Your task to perform on an android device: allow notifications from all sites in the chrome app Image 0: 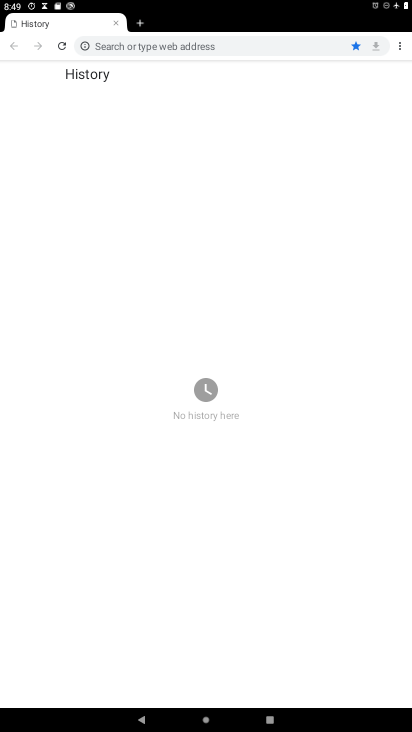
Step 0: press home button
Your task to perform on an android device: allow notifications from all sites in the chrome app Image 1: 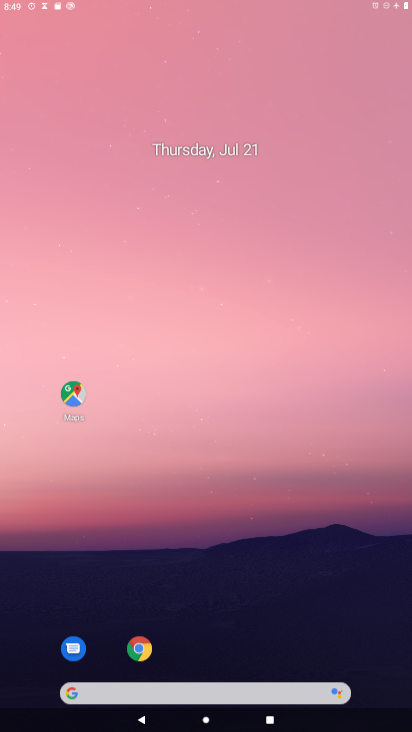
Step 1: drag from (354, 627) to (201, 75)
Your task to perform on an android device: allow notifications from all sites in the chrome app Image 2: 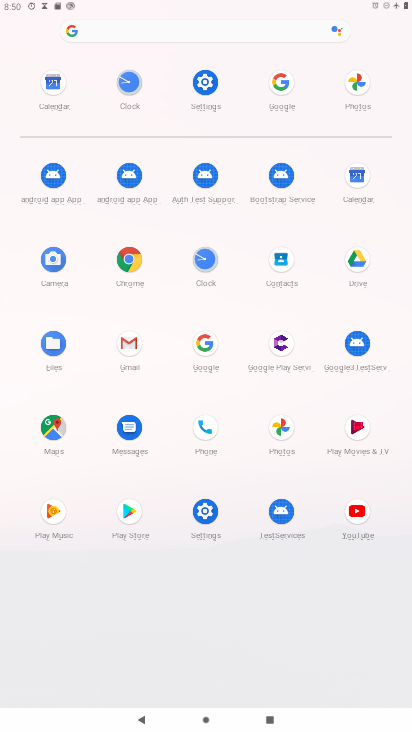
Step 2: click (132, 277)
Your task to perform on an android device: allow notifications from all sites in the chrome app Image 3: 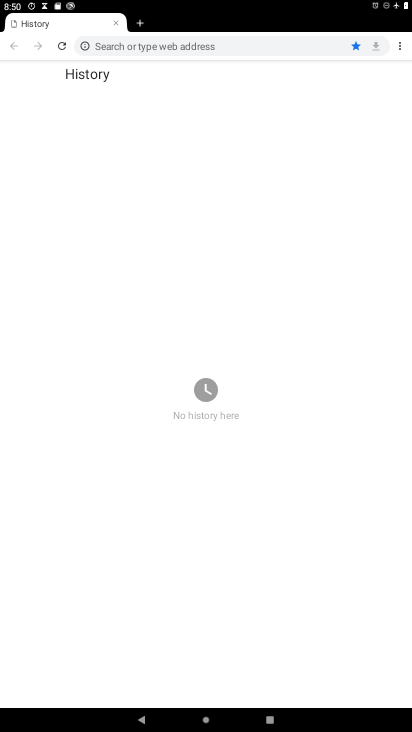
Step 3: click (398, 45)
Your task to perform on an android device: allow notifications from all sites in the chrome app Image 4: 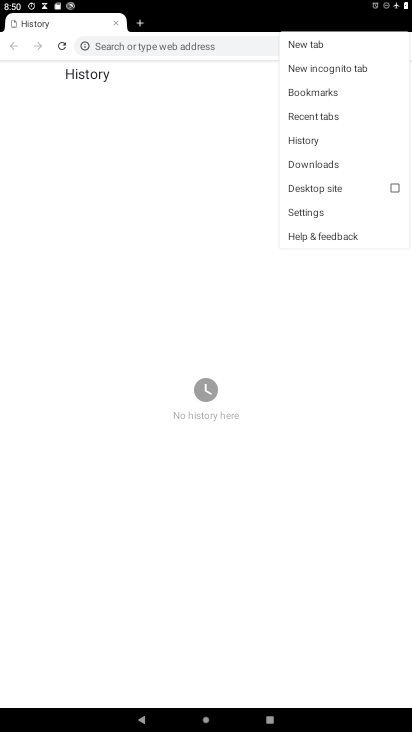
Step 4: click (309, 210)
Your task to perform on an android device: allow notifications from all sites in the chrome app Image 5: 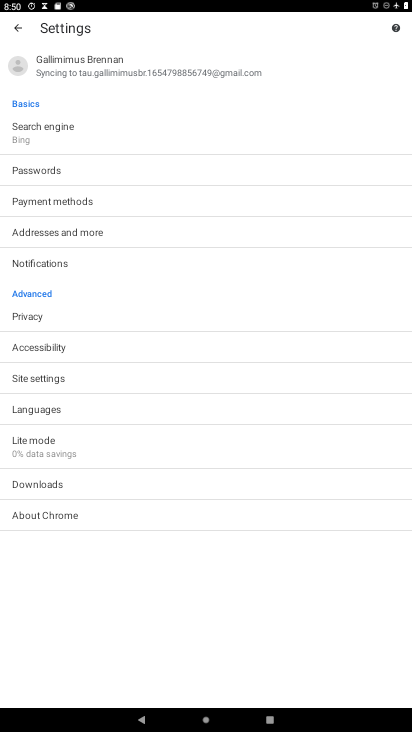
Step 5: click (66, 265)
Your task to perform on an android device: allow notifications from all sites in the chrome app Image 6: 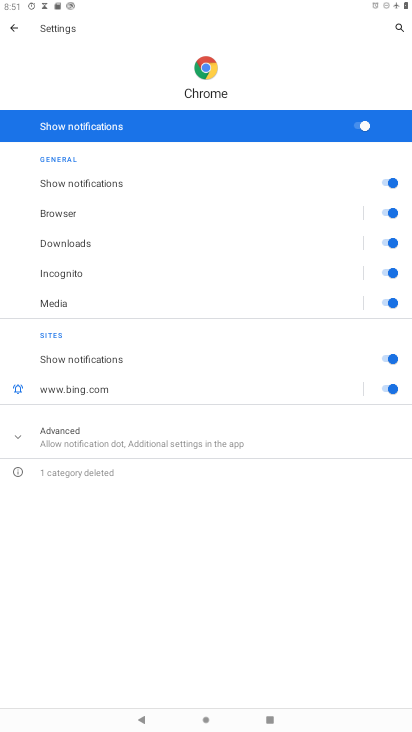
Step 6: task complete